Your task to perform on an android device: Open Google Image 0: 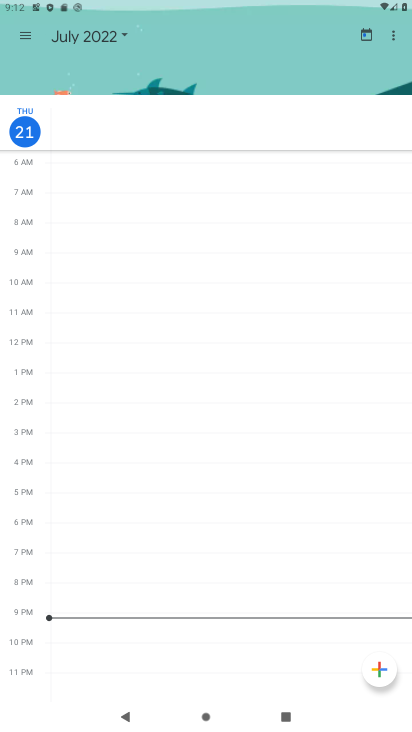
Step 0: press home button
Your task to perform on an android device: Open Google Image 1: 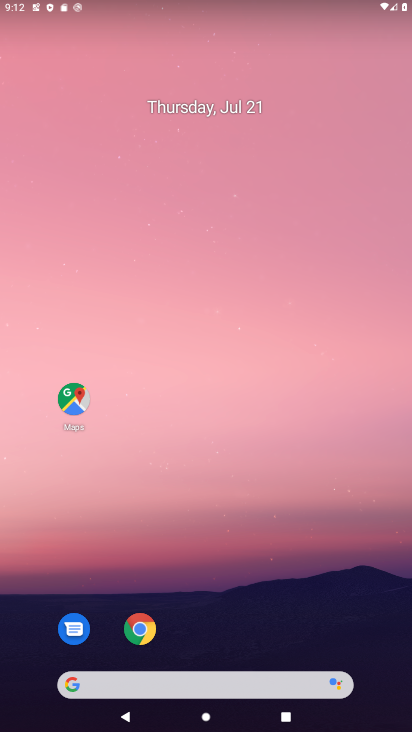
Step 1: click (116, 690)
Your task to perform on an android device: Open Google Image 2: 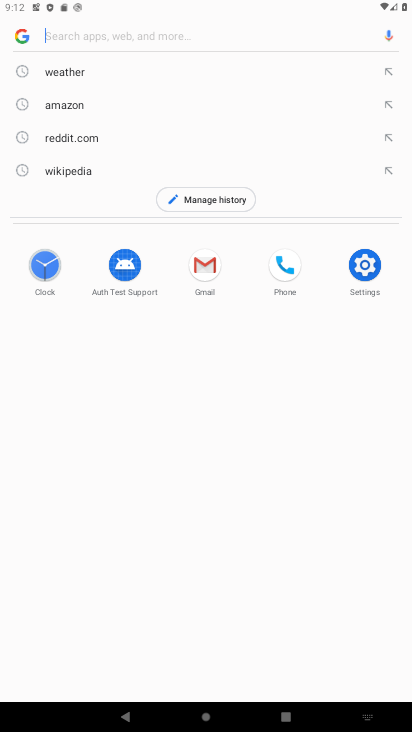
Step 2: task complete